Your task to perform on an android device: find snoozed emails in the gmail app Image 0: 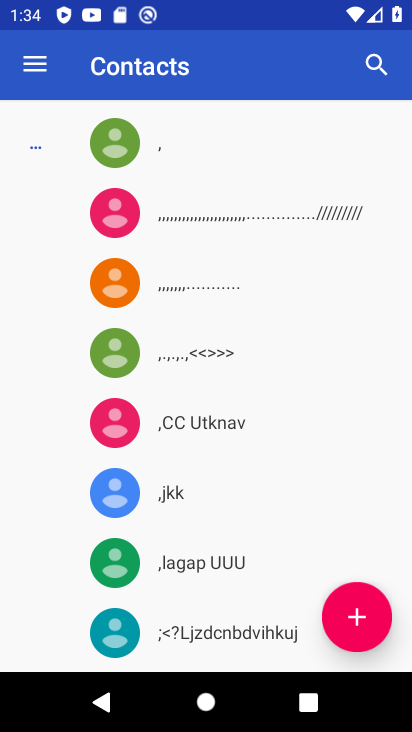
Step 0: press home button
Your task to perform on an android device: find snoozed emails in the gmail app Image 1: 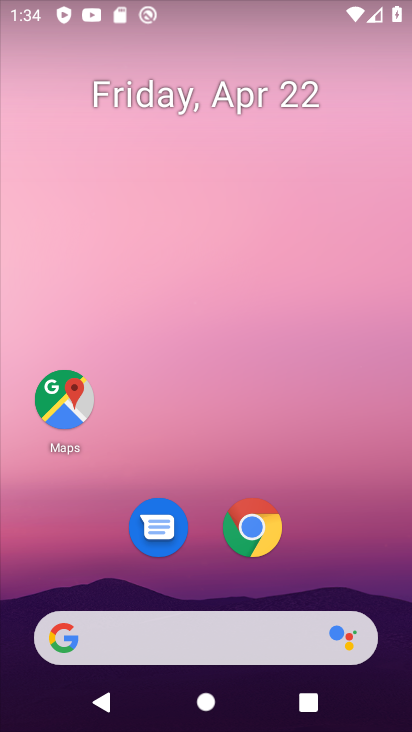
Step 1: drag from (359, 509) to (363, 15)
Your task to perform on an android device: find snoozed emails in the gmail app Image 2: 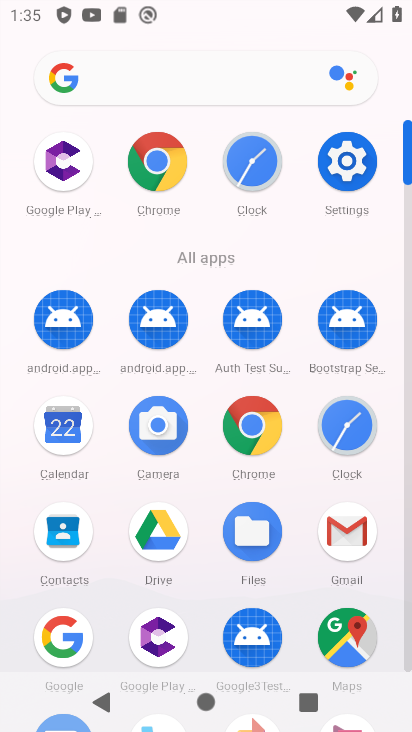
Step 2: click (354, 536)
Your task to perform on an android device: find snoozed emails in the gmail app Image 3: 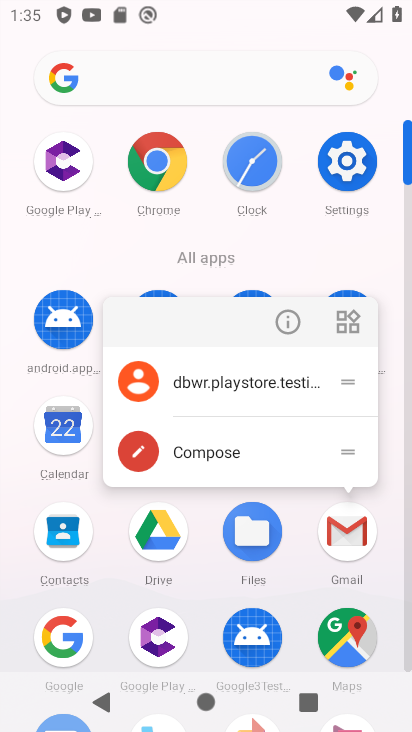
Step 3: click (354, 536)
Your task to perform on an android device: find snoozed emails in the gmail app Image 4: 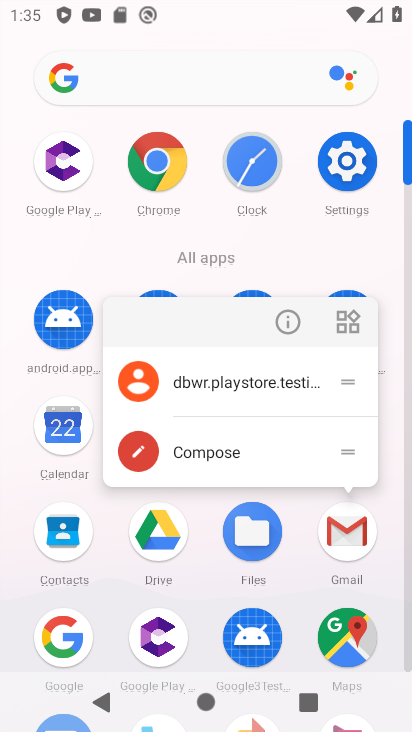
Step 4: click (355, 535)
Your task to perform on an android device: find snoozed emails in the gmail app Image 5: 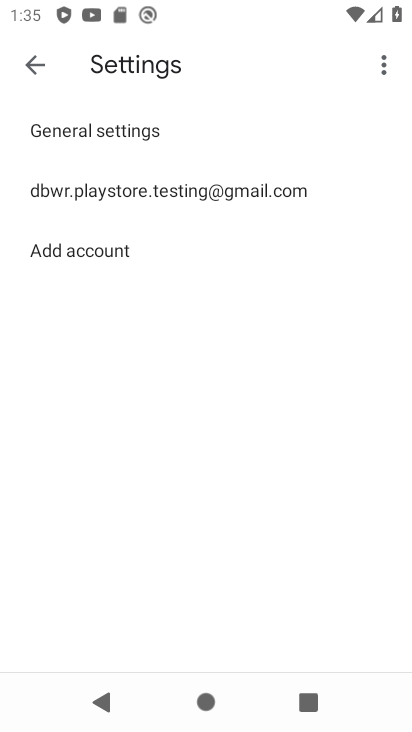
Step 5: click (39, 51)
Your task to perform on an android device: find snoozed emails in the gmail app Image 6: 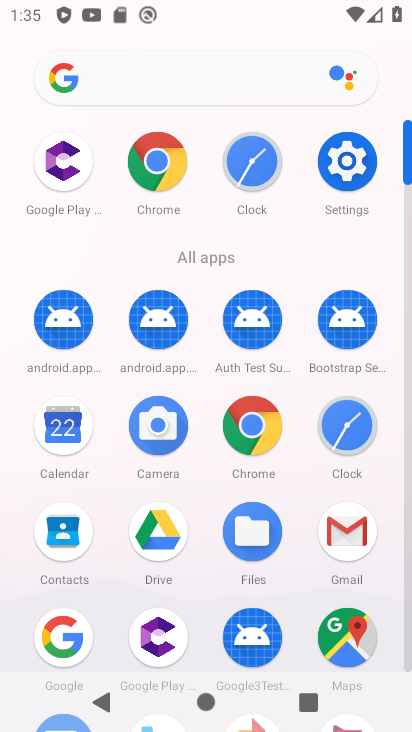
Step 6: click (359, 518)
Your task to perform on an android device: find snoozed emails in the gmail app Image 7: 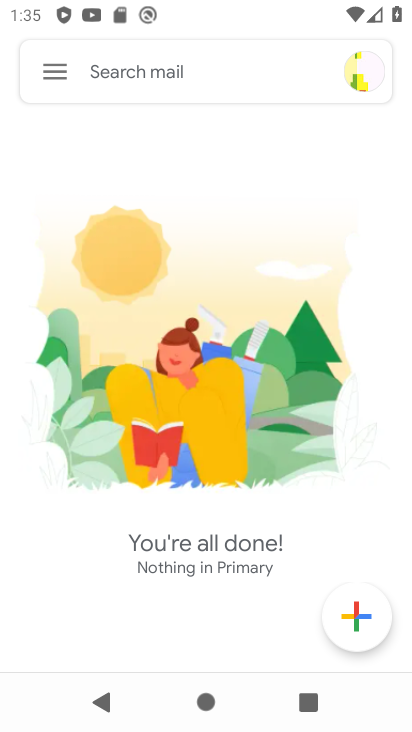
Step 7: click (45, 70)
Your task to perform on an android device: find snoozed emails in the gmail app Image 8: 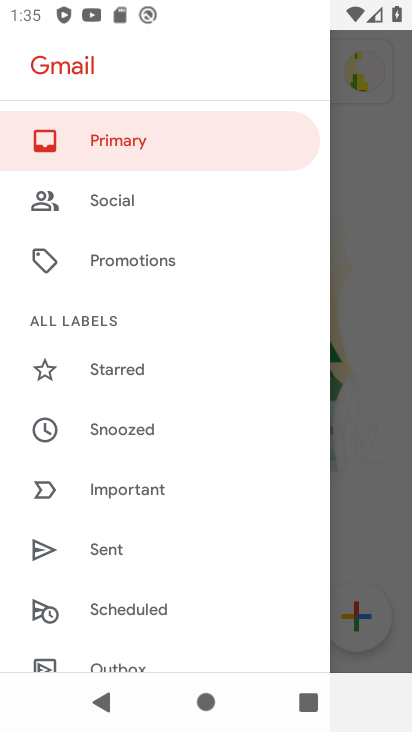
Step 8: drag from (222, 588) to (289, 75)
Your task to perform on an android device: find snoozed emails in the gmail app Image 9: 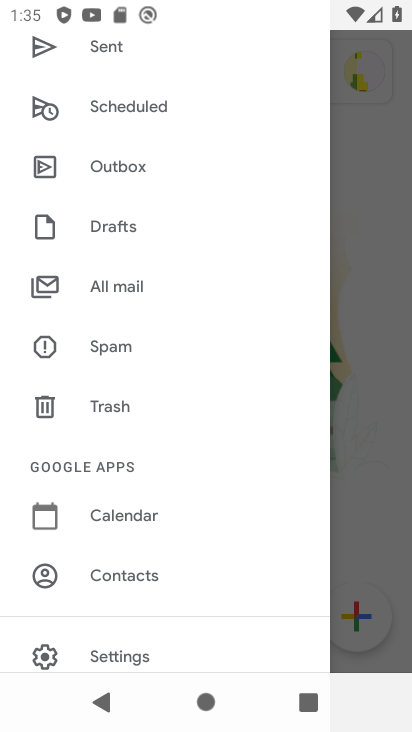
Step 9: click (132, 284)
Your task to perform on an android device: find snoozed emails in the gmail app Image 10: 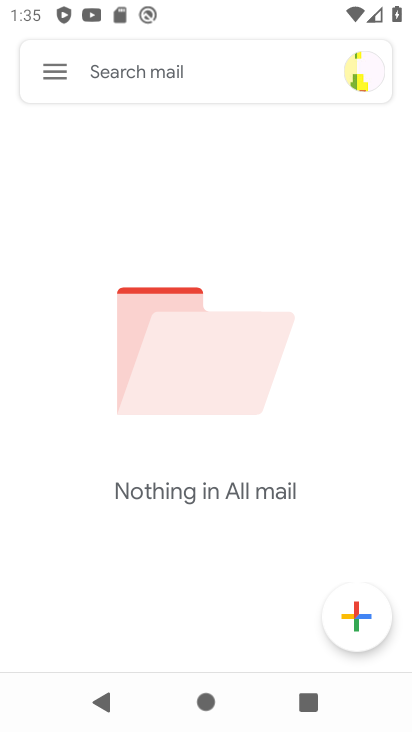
Step 10: task complete